Your task to perform on an android device: Open the downloads Image 0: 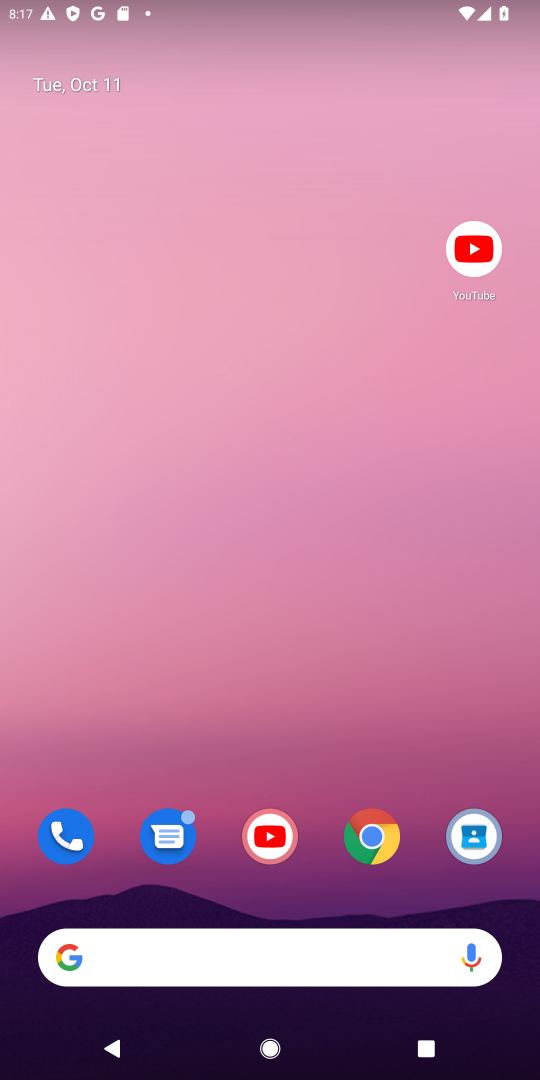
Step 0: drag from (393, 344) to (447, 221)
Your task to perform on an android device: Open the downloads Image 1: 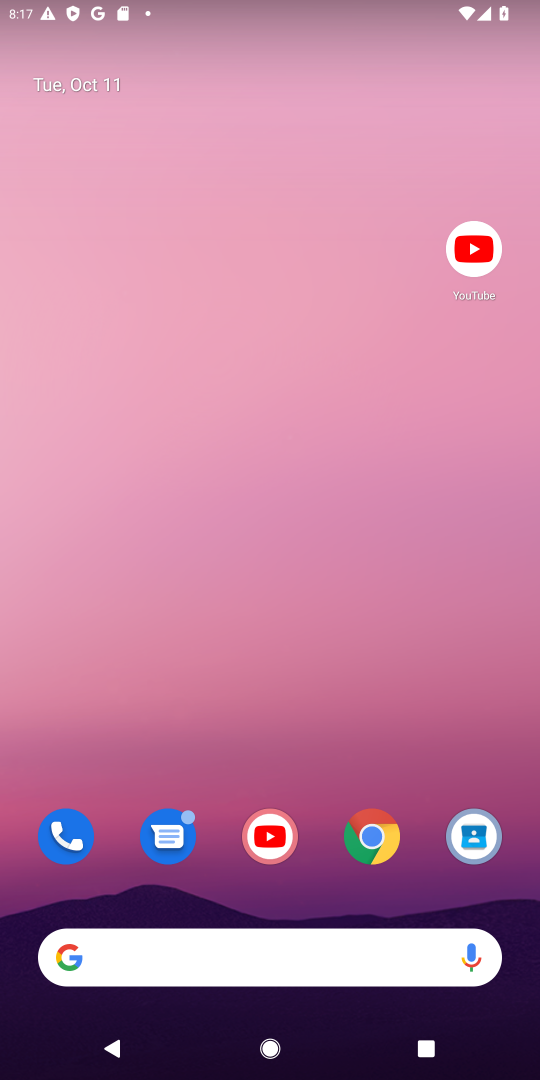
Step 1: drag from (310, 924) to (403, 146)
Your task to perform on an android device: Open the downloads Image 2: 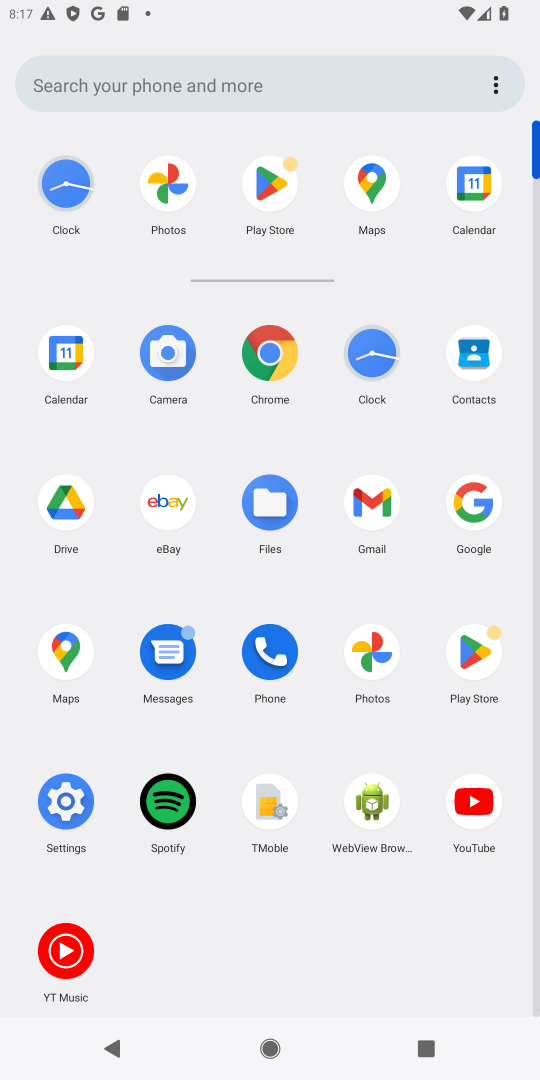
Step 2: click (259, 502)
Your task to perform on an android device: Open the downloads Image 3: 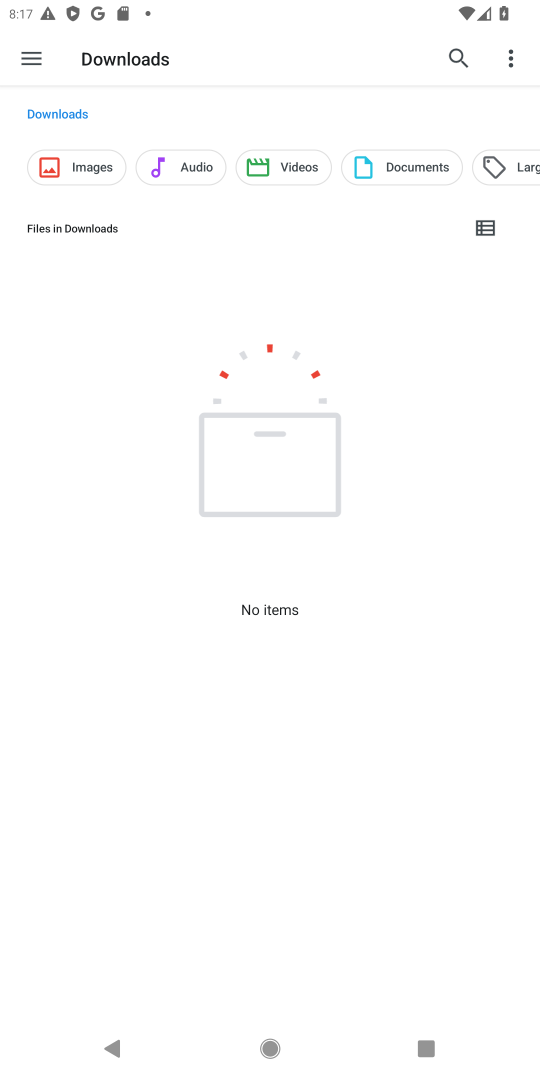
Step 3: click (113, 54)
Your task to perform on an android device: Open the downloads Image 4: 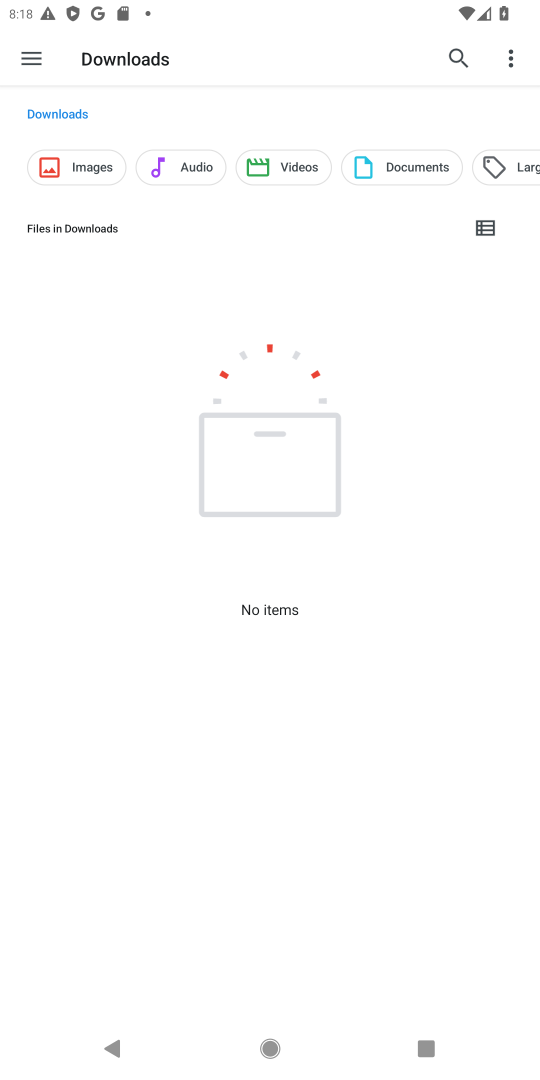
Step 4: task complete